Your task to perform on an android device: What's on my calendar tomorrow? Image 0: 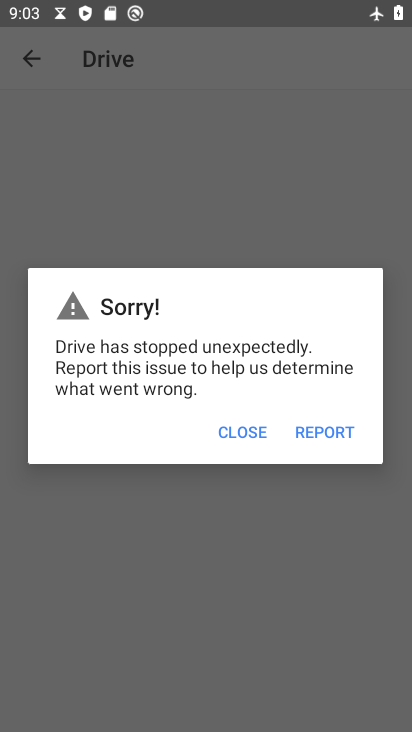
Step 0: press home button
Your task to perform on an android device: What's on my calendar tomorrow? Image 1: 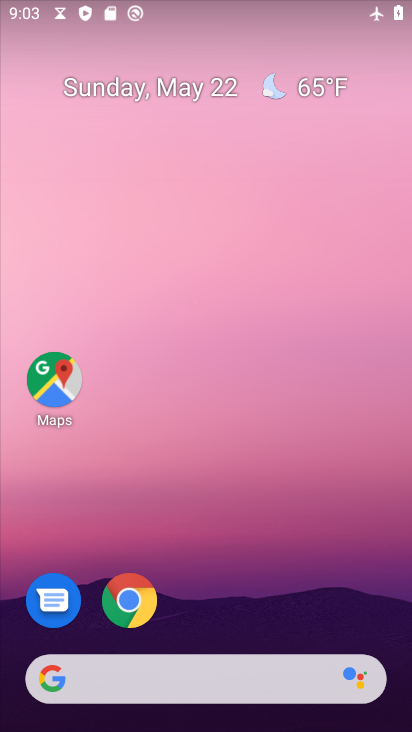
Step 1: click (210, 246)
Your task to perform on an android device: What's on my calendar tomorrow? Image 2: 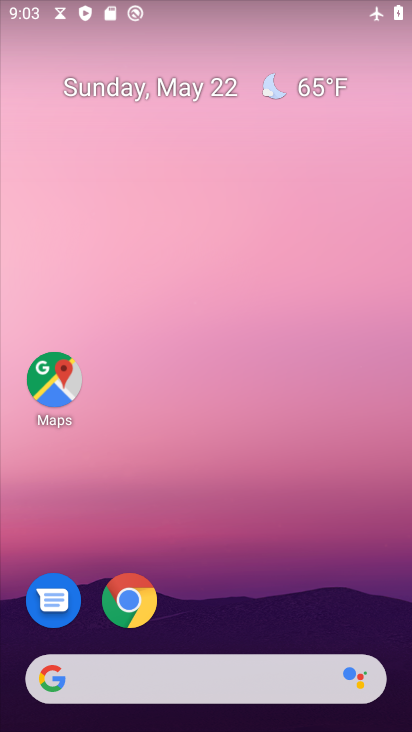
Step 2: drag from (212, 603) to (211, 180)
Your task to perform on an android device: What's on my calendar tomorrow? Image 3: 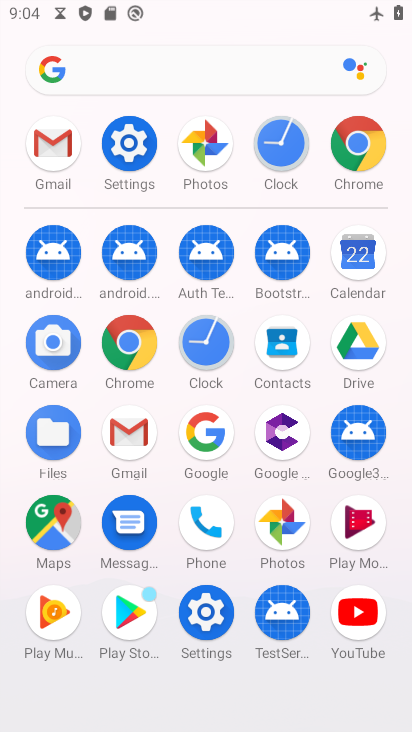
Step 3: click (372, 278)
Your task to perform on an android device: What's on my calendar tomorrow? Image 4: 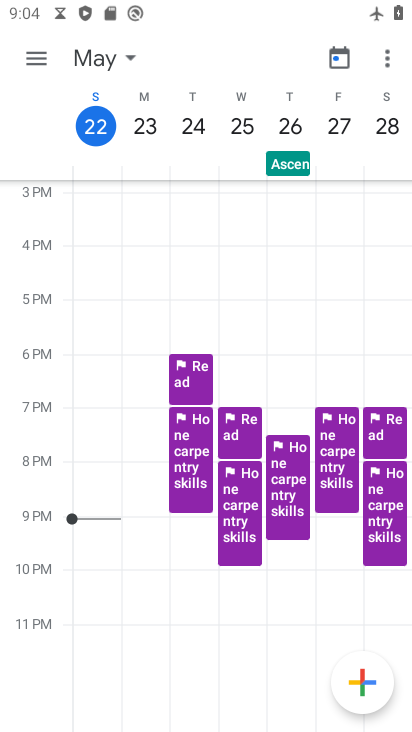
Step 4: click (45, 61)
Your task to perform on an android device: What's on my calendar tomorrow? Image 5: 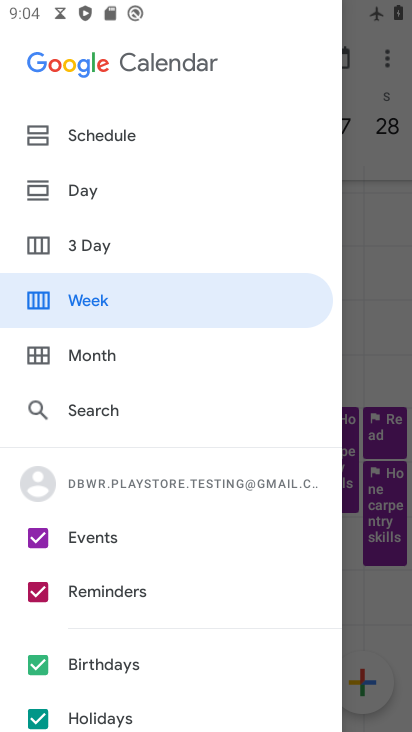
Step 5: click (40, 64)
Your task to perform on an android device: What's on my calendar tomorrow? Image 6: 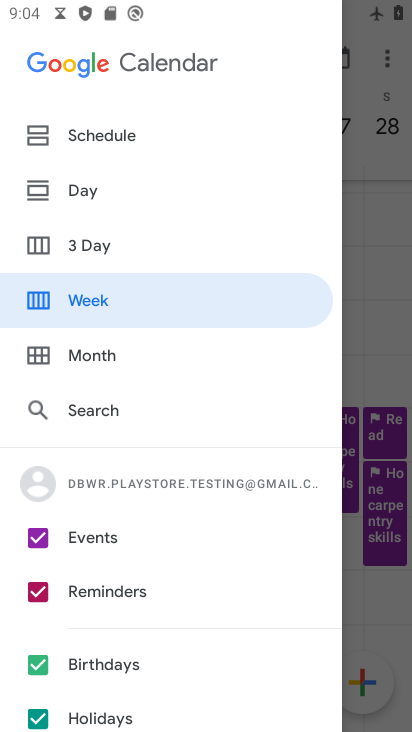
Step 6: click (110, 140)
Your task to perform on an android device: What's on my calendar tomorrow? Image 7: 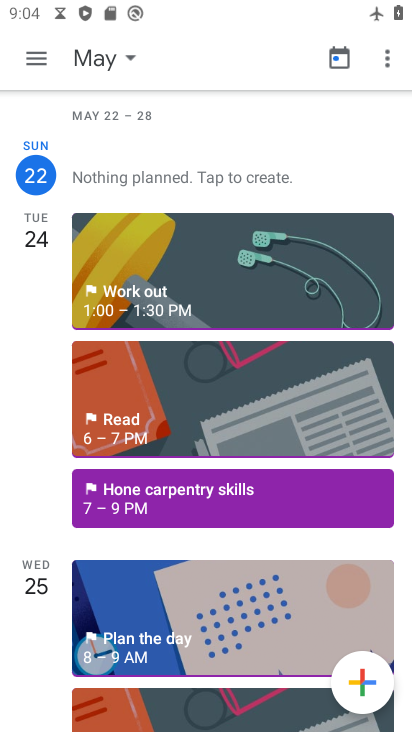
Step 7: task complete